Your task to perform on an android device: Play the last video I watched on Youtube Image 0: 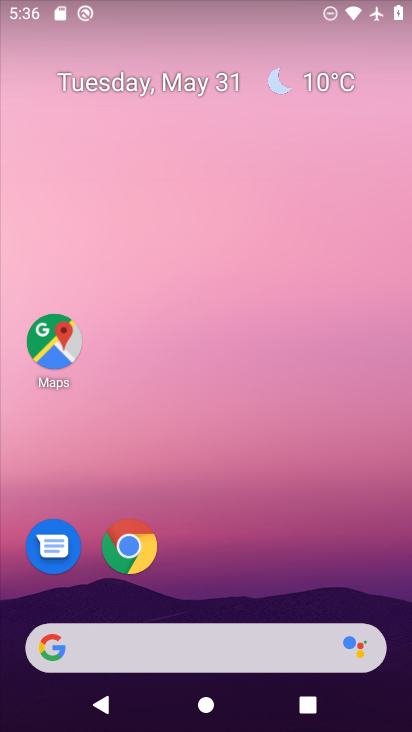
Step 0: drag from (279, 577) to (85, 33)
Your task to perform on an android device: Play the last video I watched on Youtube Image 1: 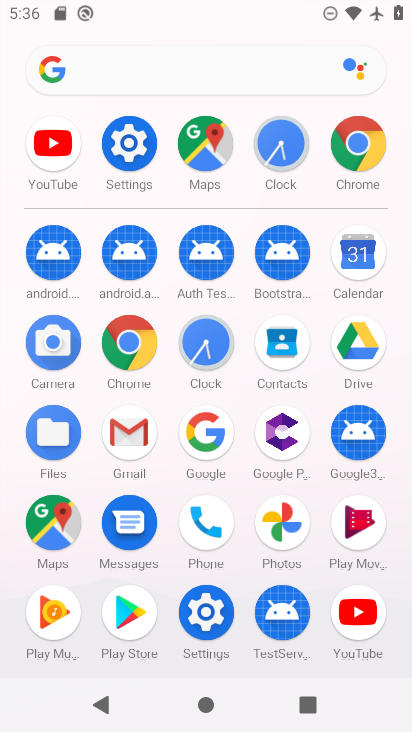
Step 1: click (361, 625)
Your task to perform on an android device: Play the last video I watched on Youtube Image 2: 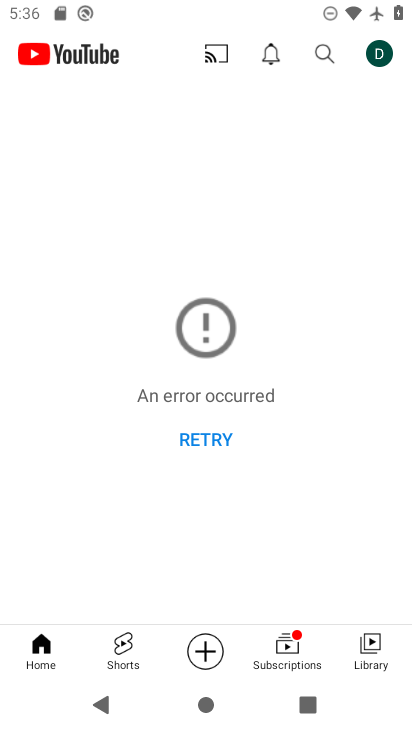
Step 2: click (373, 641)
Your task to perform on an android device: Play the last video I watched on Youtube Image 3: 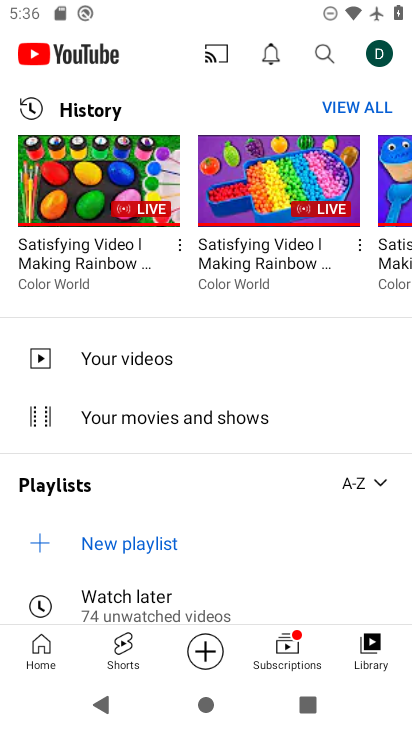
Step 3: click (76, 189)
Your task to perform on an android device: Play the last video I watched on Youtube Image 4: 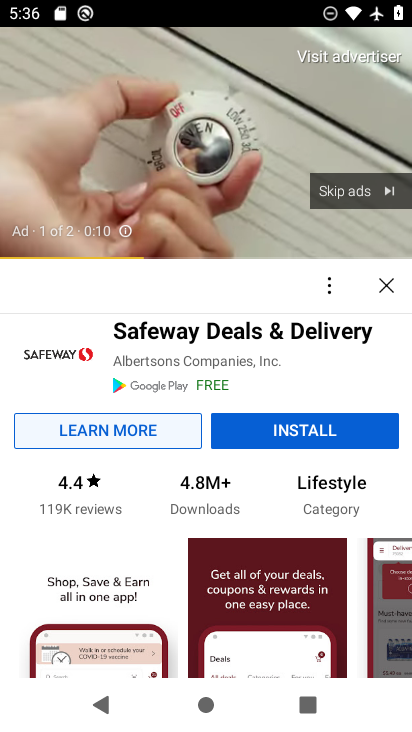
Step 4: click (354, 188)
Your task to perform on an android device: Play the last video I watched on Youtube Image 5: 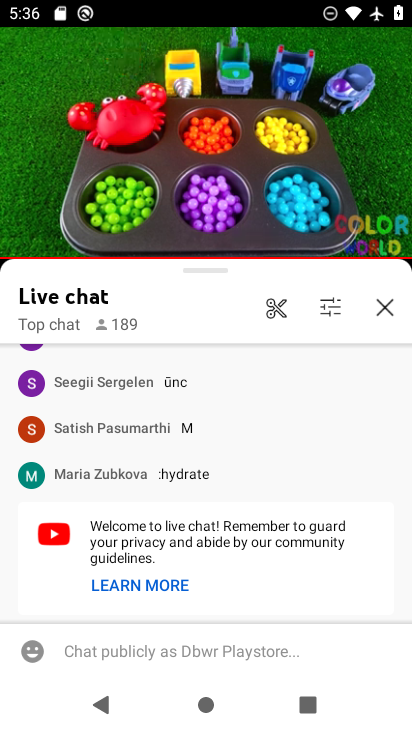
Step 5: click (200, 139)
Your task to perform on an android device: Play the last video I watched on Youtube Image 6: 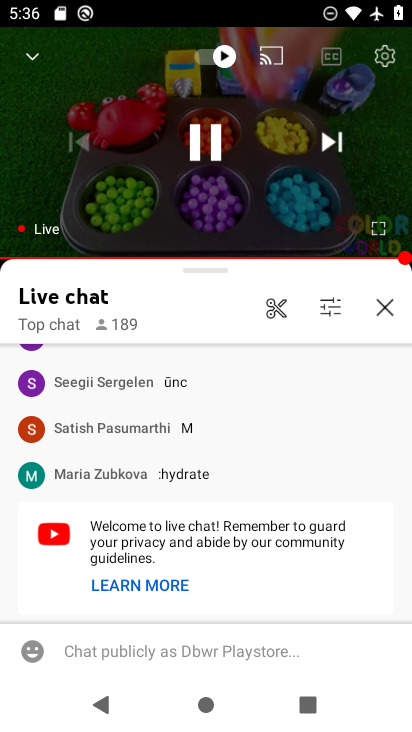
Step 6: click (201, 139)
Your task to perform on an android device: Play the last video I watched on Youtube Image 7: 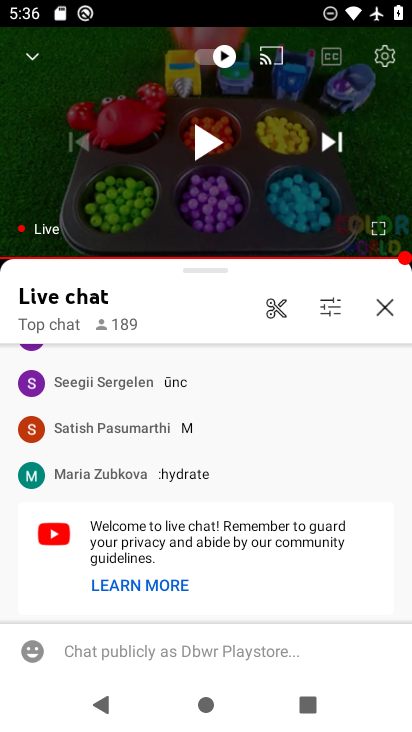
Step 7: task complete